Your task to perform on an android device: all mails in gmail Image 0: 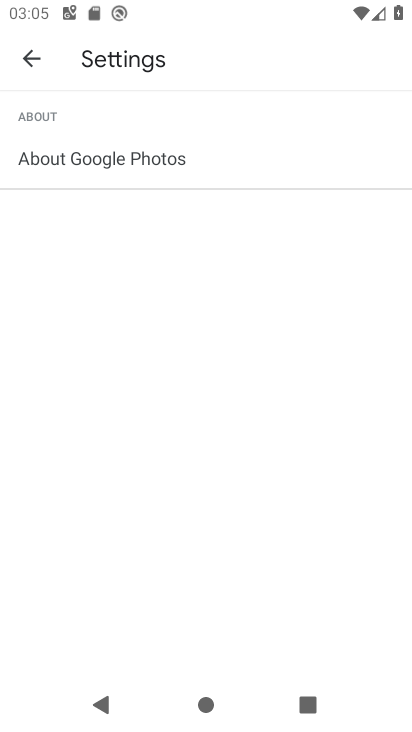
Step 0: press home button
Your task to perform on an android device: all mails in gmail Image 1: 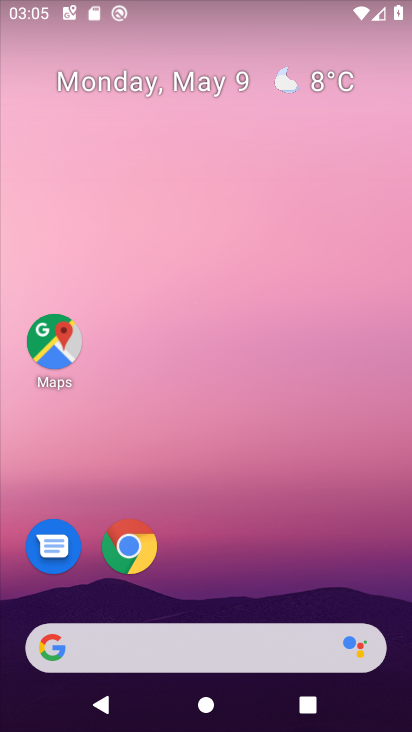
Step 1: drag from (214, 527) to (254, 61)
Your task to perform on an android device: all mails in gmail Image 2: 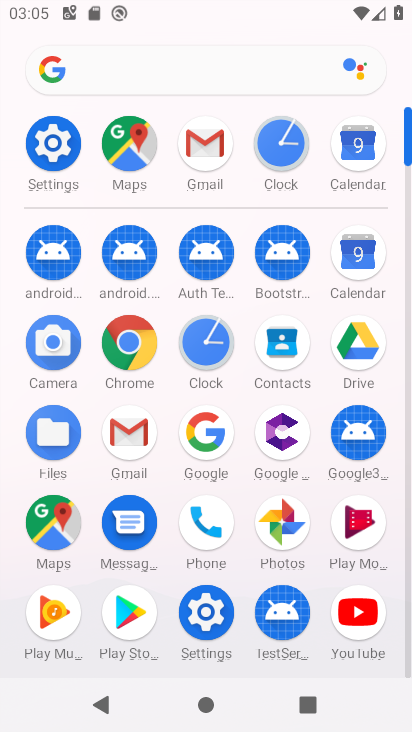
Step 2: click (213, 146)
Your task to perform on an android device: all mails in gmail Image 3: 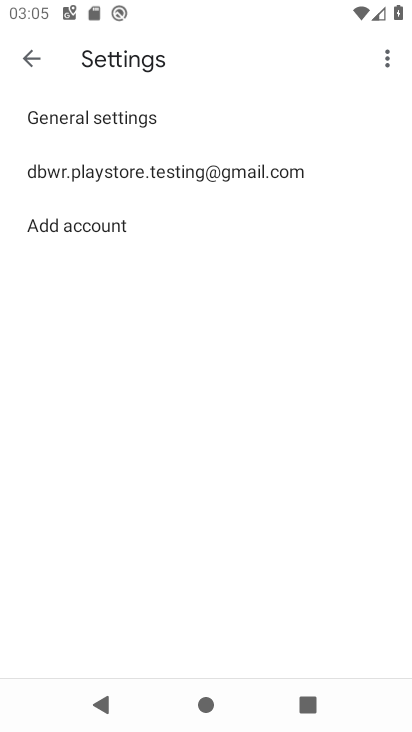
Step 3: click (32, 53)
Your task to perform on an android device: all mails in gmail Image 4: 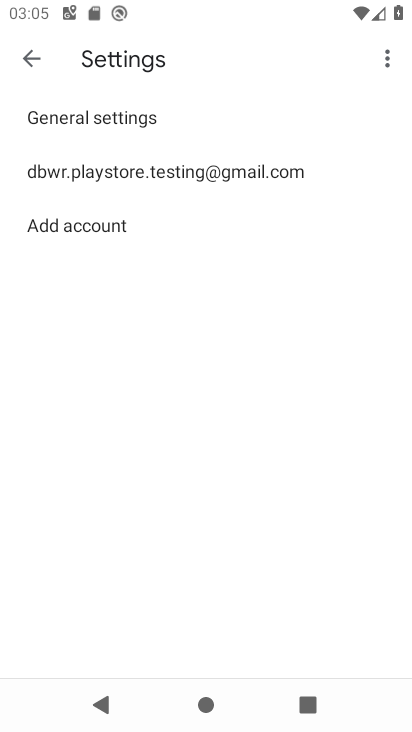
Step 4: click (29, 49)
Your task to perform on an android device: all mails in gmail Image 5: 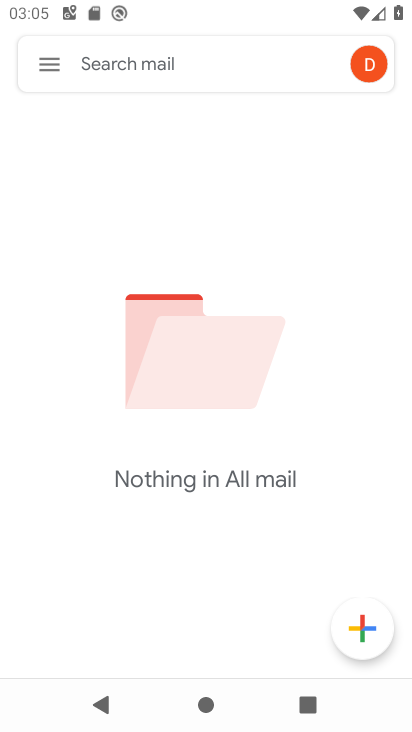
Step 5: task complete